Your task to perform on an android device: change the clock style Image 0: 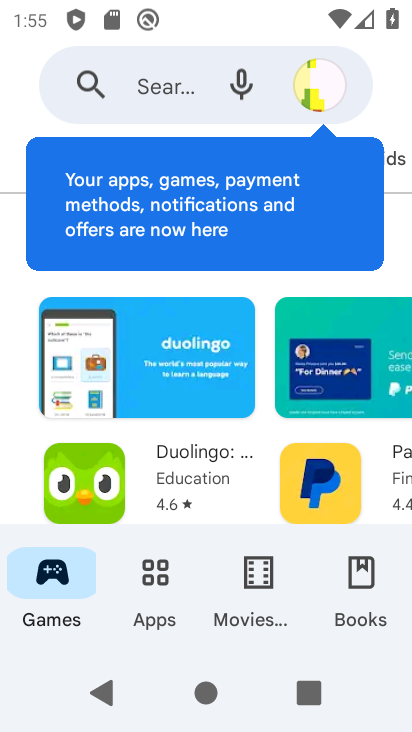
Step 0: press home button
Your task to perform on an android device: change the clock style Image 1: 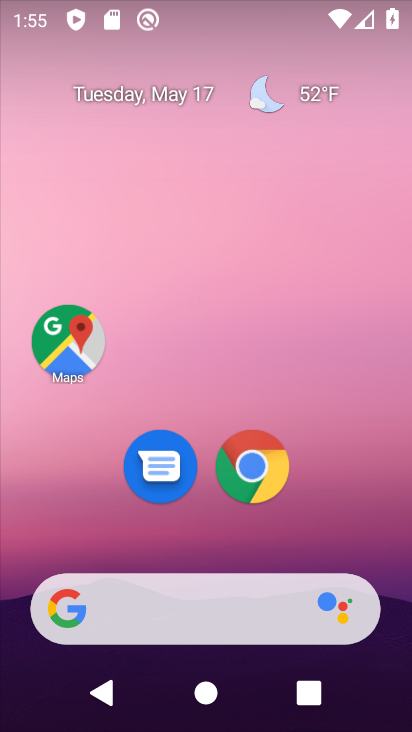
Step 1: drag from (87, 553) to (193, 8)
Your task to perform on an android device: change the clock style Image 2: 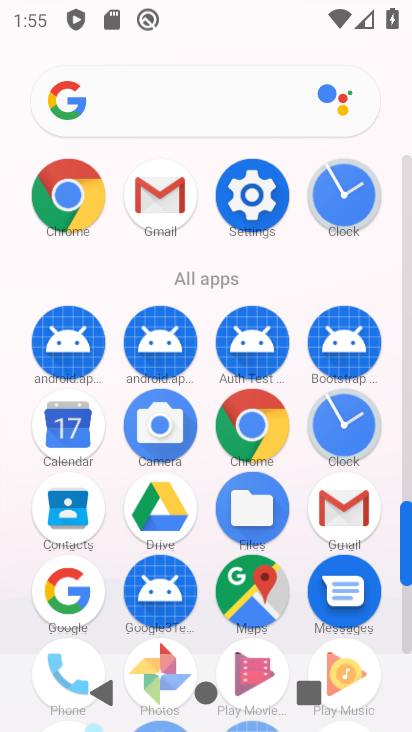
Step 2: click (369, 433)
Your task to perform on an android device: change the clock style Image 3: 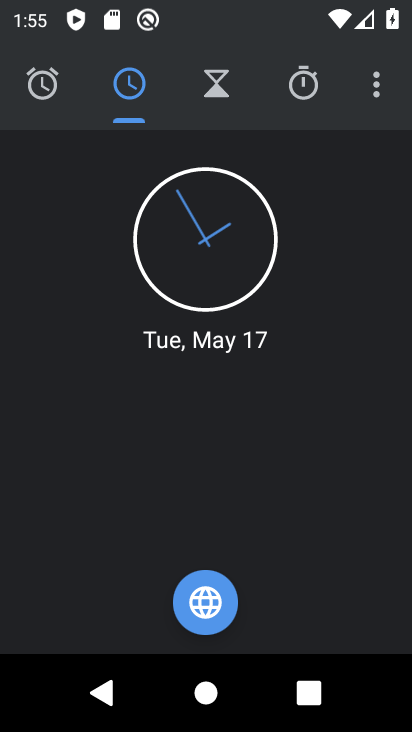
Step 3: click (372, 93)
Your task to perform on an android device: change the clock style Image 4: 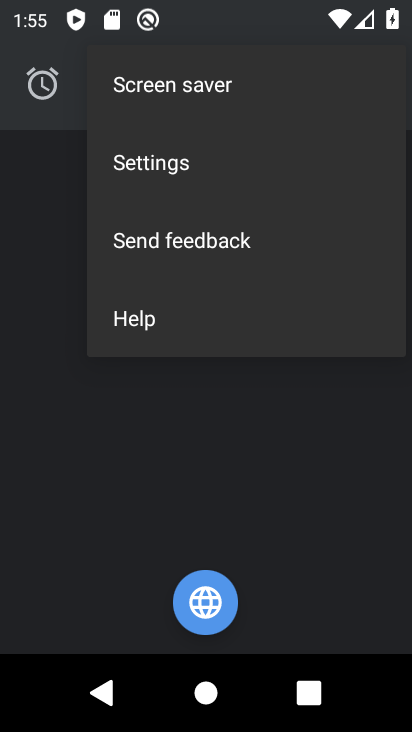
Step 4: click (269, 152)
Your task to perform on an android device: change the clock style Image 5: 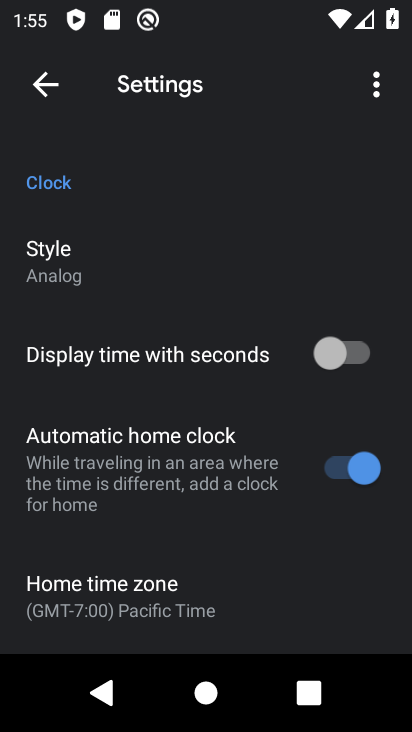
Step 5: click (180, 243)
Your task to perform on an android device: change the clock style Image 6: 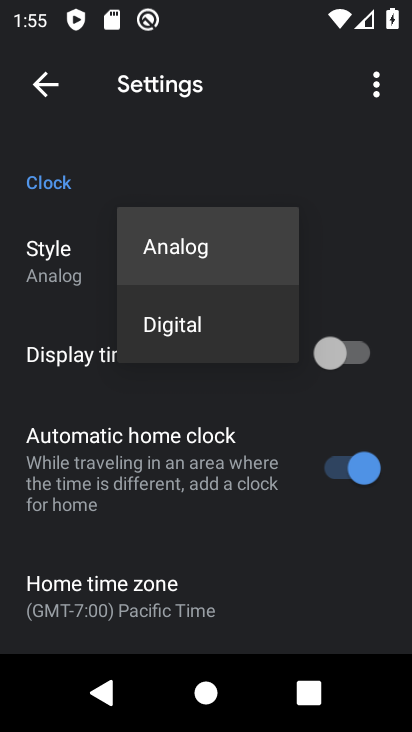
Step 6: click (198, 329)
Your task to perform on an android device: change the clock style Image 7: 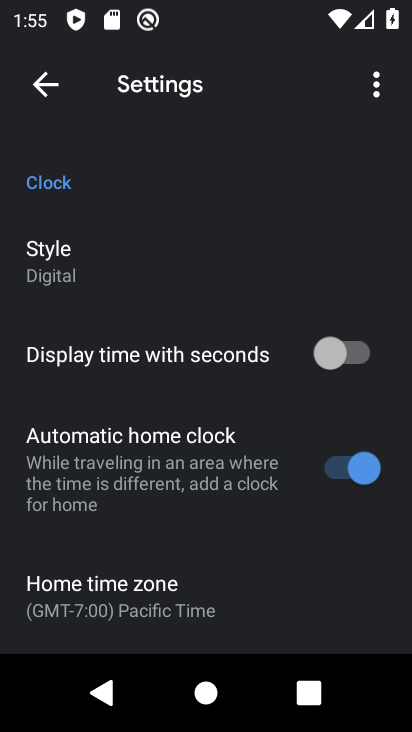
Step 7: task complete